Your task to perform on an android device: Open network settings Image 0: 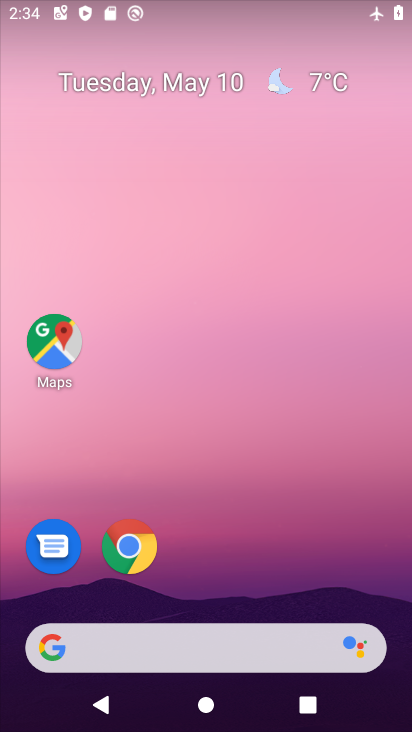
Step 0: drag from (281, 522) to (245, 161)
Your task to perform on an android device: Open network settings Image 1: 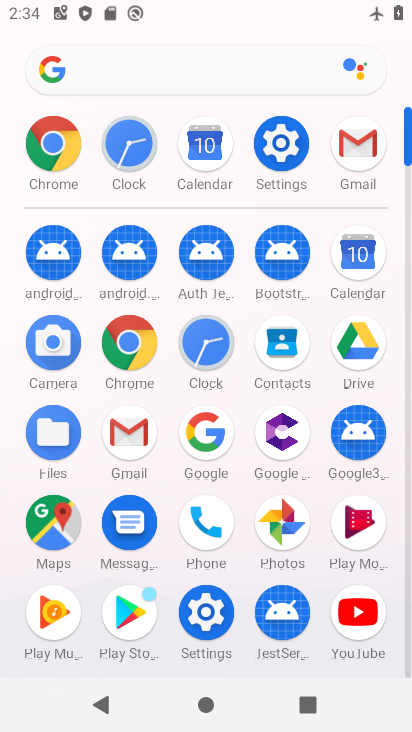
Step 1: click (262, 152)
Your task to perform on an android device: Open network settings Image 2: 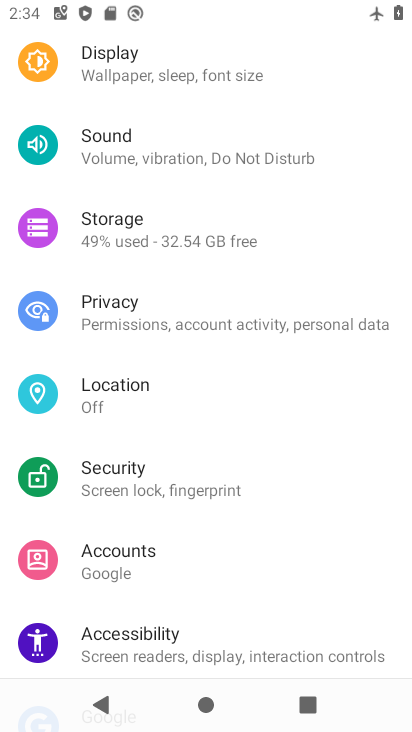
Step 2: drag from (262, 152) to (258, 611)
Your task to perform on an android device: Open network settings Image 3: 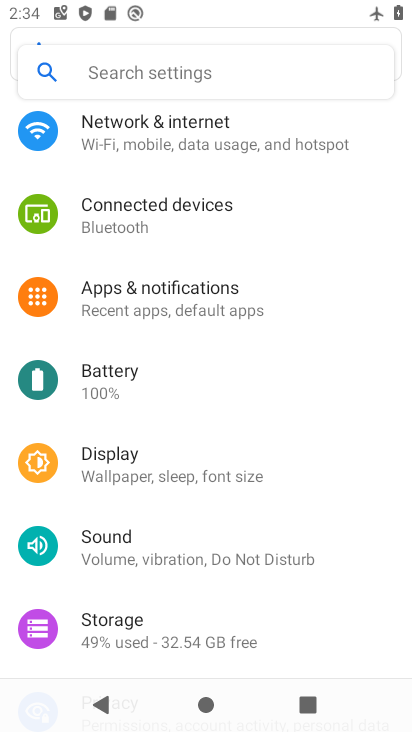
Step 3: drag from (218, 203) to (274, 583)
Your task to perform on an android device: Open network settings Image 4: 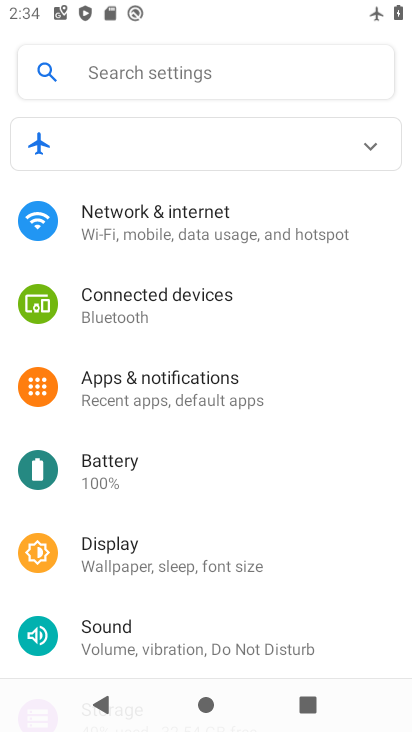
Step 4: click (223, 225)
Your task to perform on an android device: Open network settings Image 5: 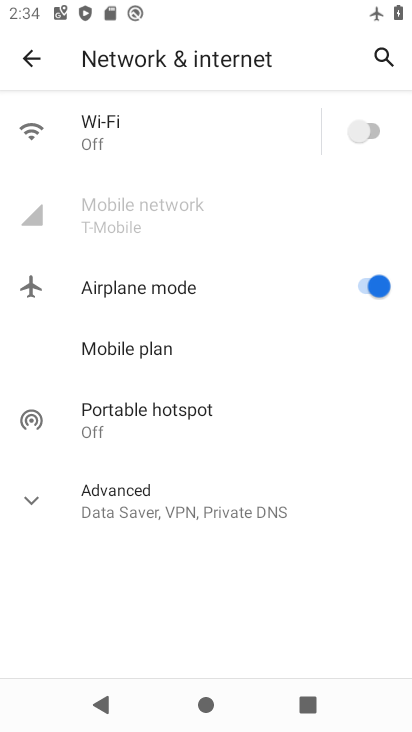
Step 5: click (142, 214)
Your task to perform on an android device: Open network settings Image 6: 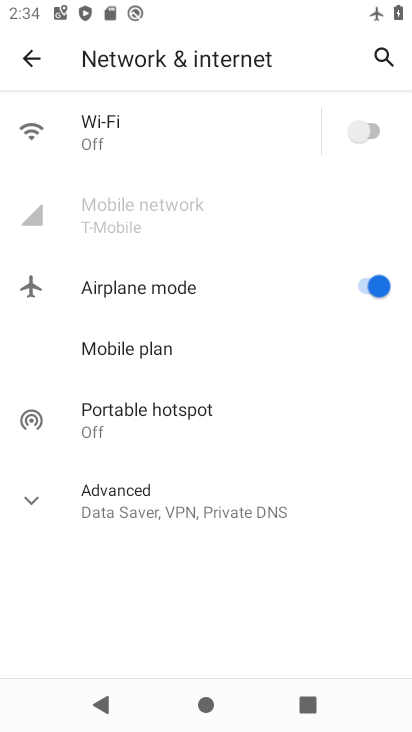
Step 6: task complete